Your task to perform on an android device: turn on notifications settings in the gmail app Image 0: 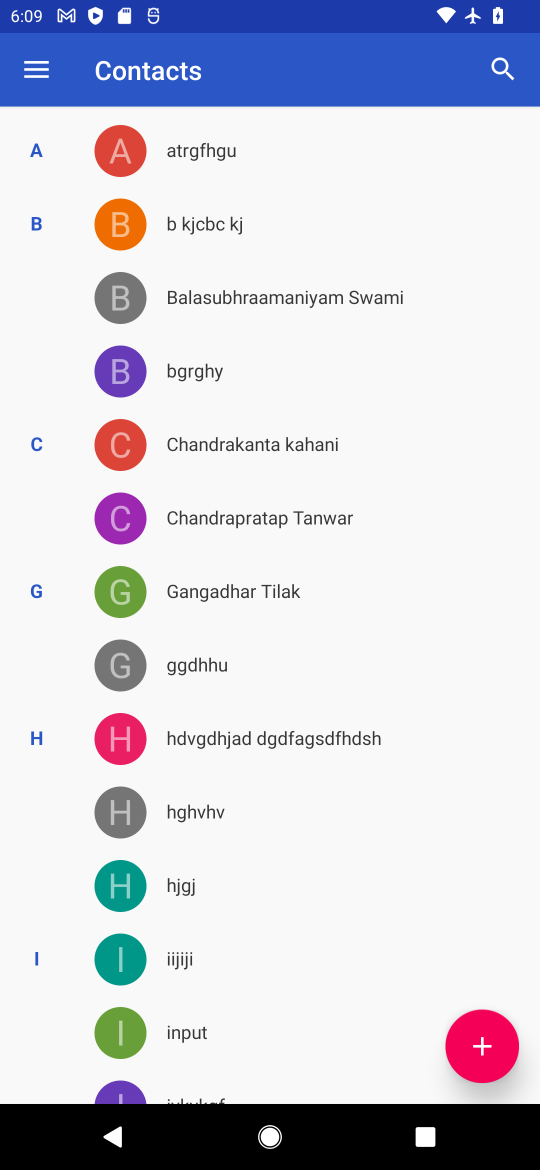
Step 0: press home button
Your task to perform on an android device: turn on notifications settings in the gmail app Image 1: 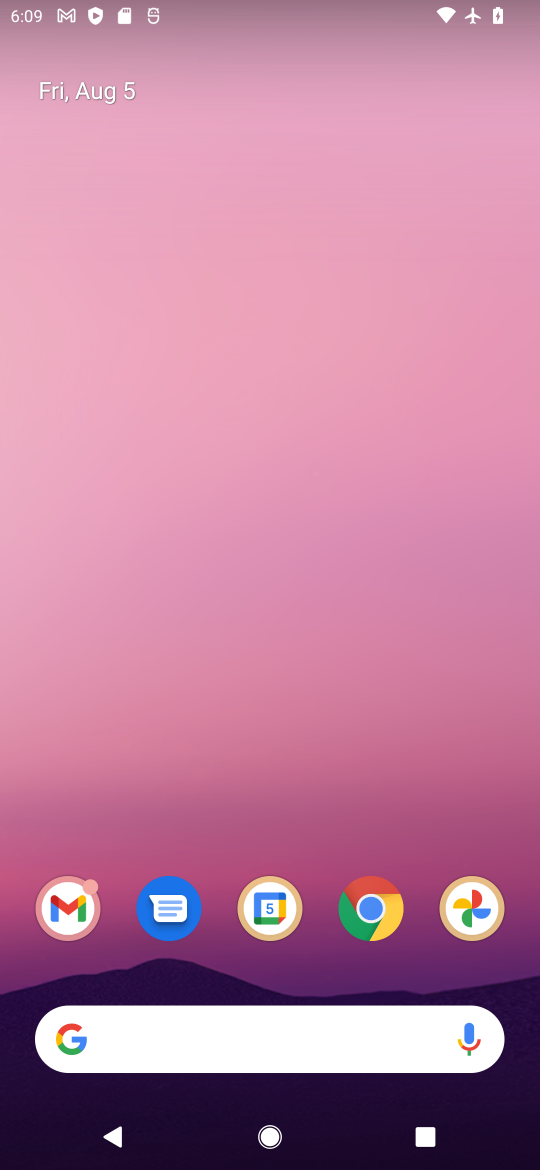
Step 1: drag from (233, 954) to (239, 136)
Your task to perform on an android device: turn on notifications settings in the gmail app Image 2: 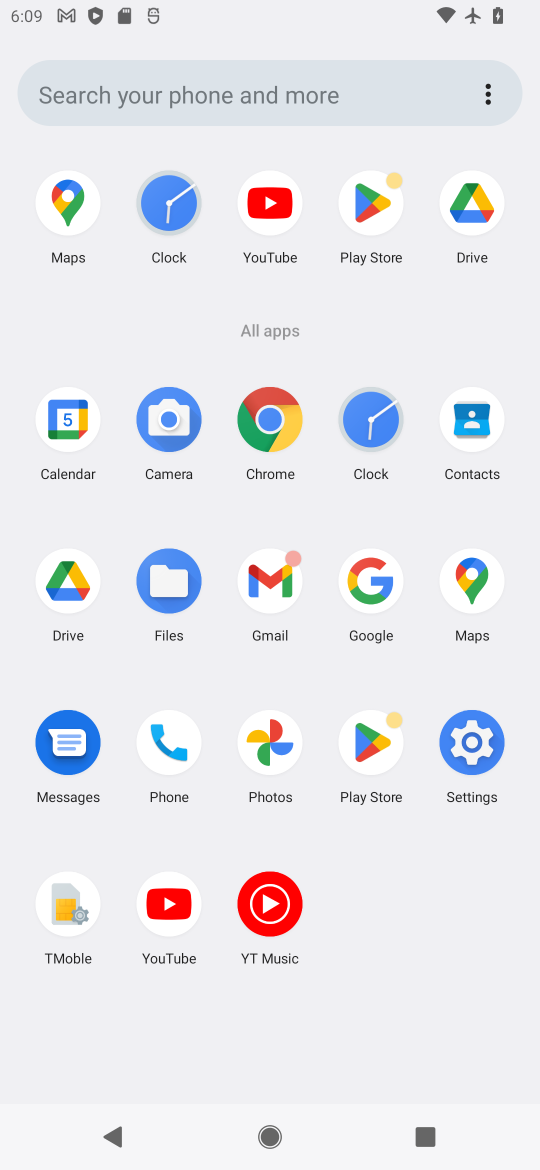
Step 2: click (274, 578)
Your task to perform on an android device: turn on notifications settings in the gmail app Image 3: 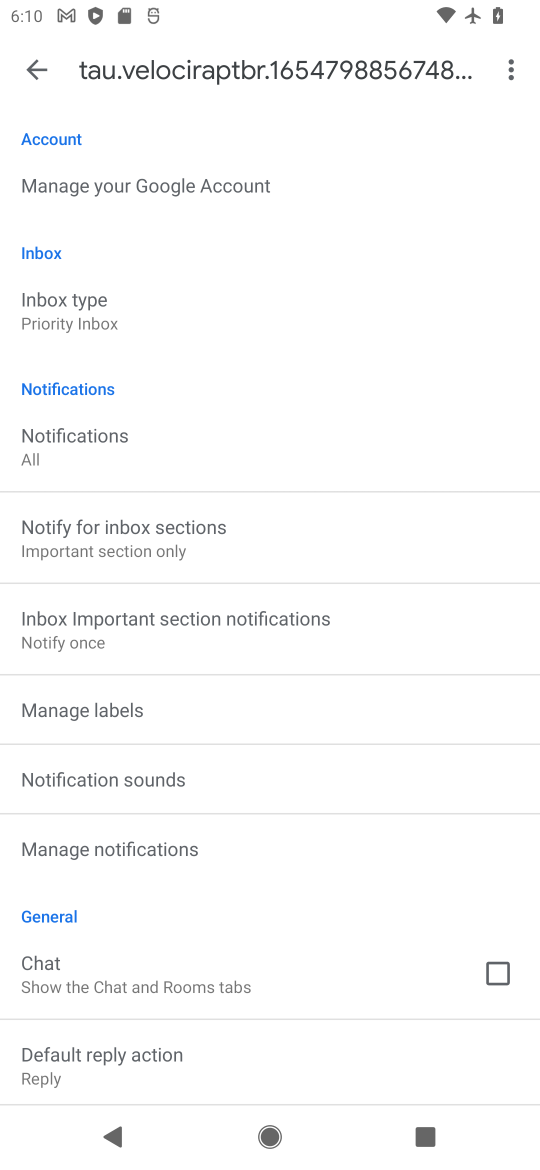
Step 3: click (141, 849)
Your task to perform on an android device: turn on notifications settings in the gmail app Image 4: 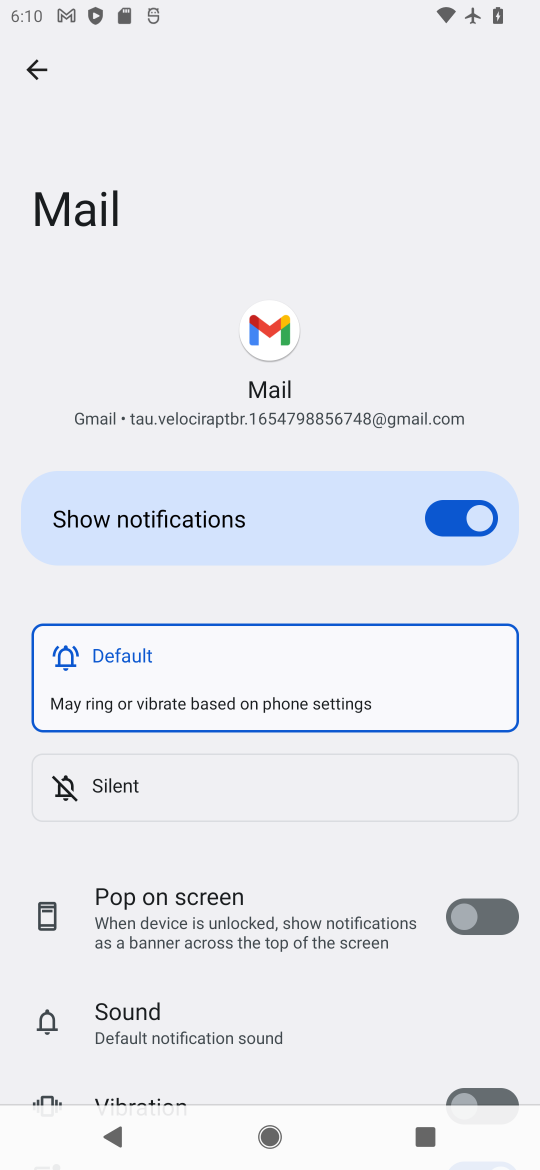
Step 4: task complete